Your task to perform on an android device: Open internet settings Image 0: 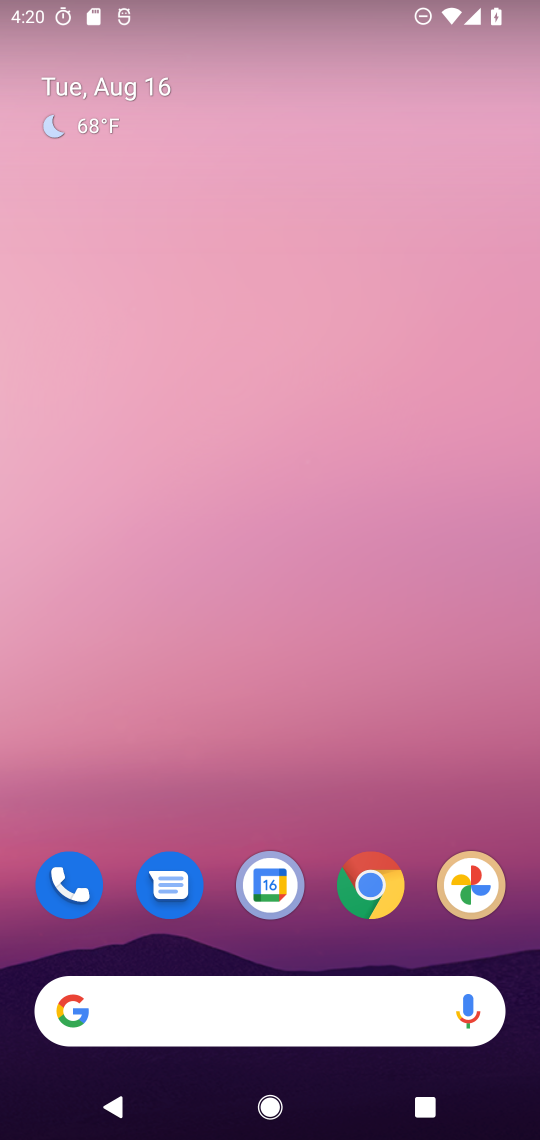
Step 0: drag from (218, 908) to (240, 286)
Your task to perform on an android device: Open internet settings Image 1: 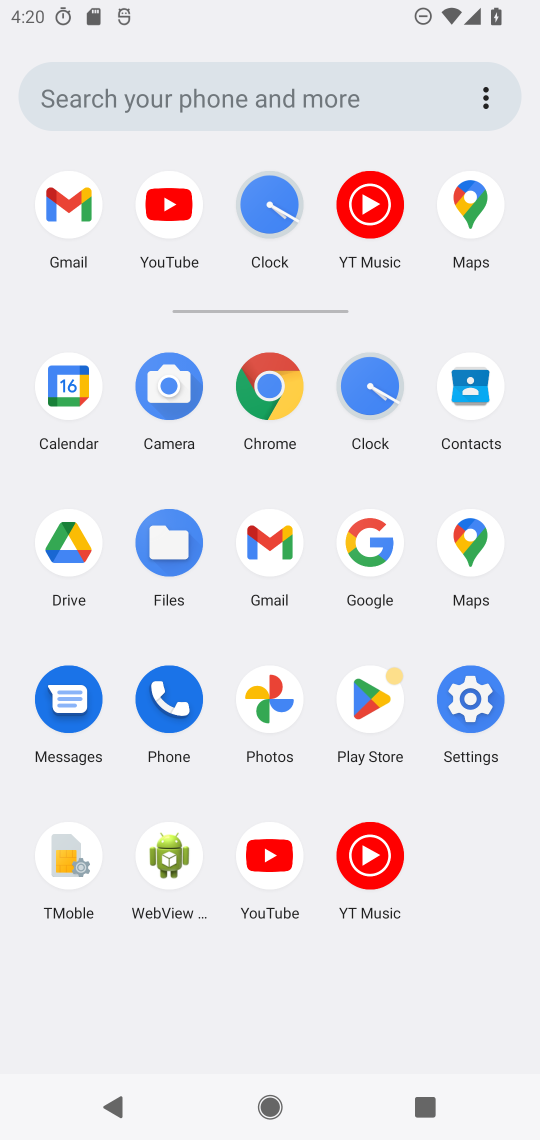
Step 1: click (468, 671)
Your task to perform on an android device: Open internet settings Image 2: 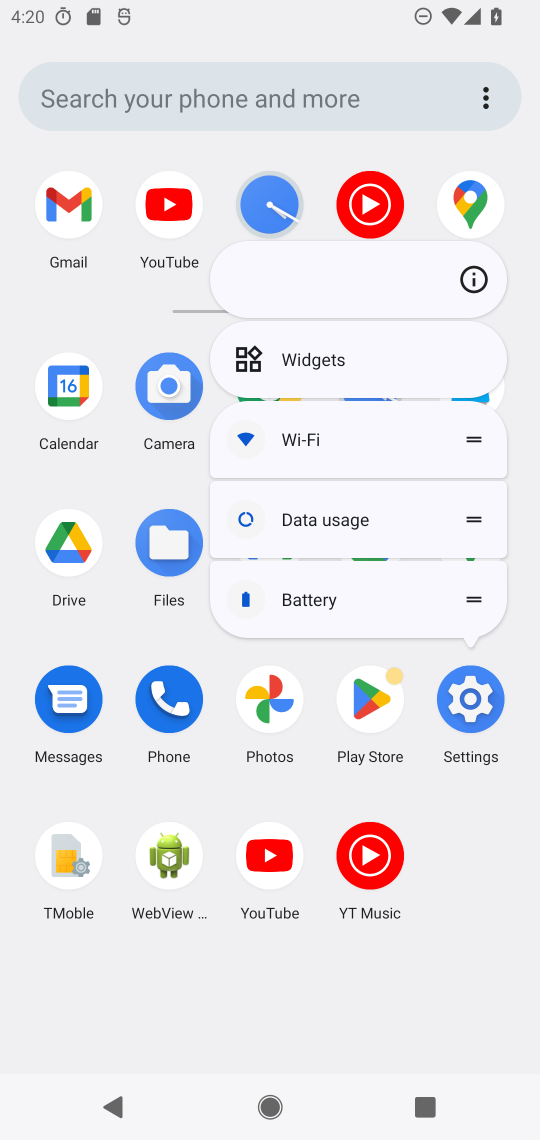
Step 2: click (478, 689)
Your task to perform on an android device: Open internet settings Image 3: 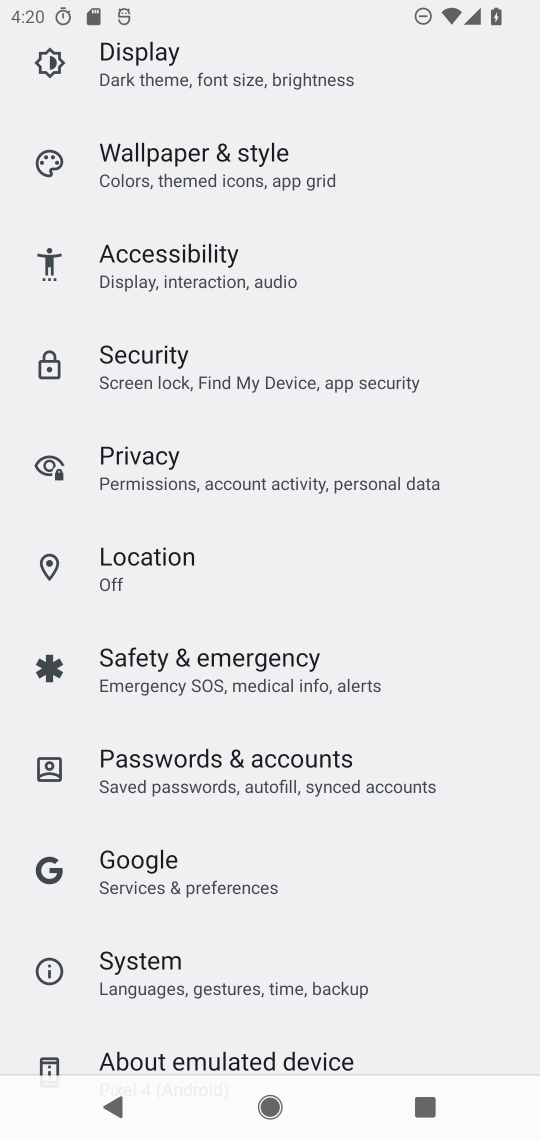
Step 3: drag from (170, 103) to (209, 811)
Your task to perform on an android device: Open internet settings Image 4: 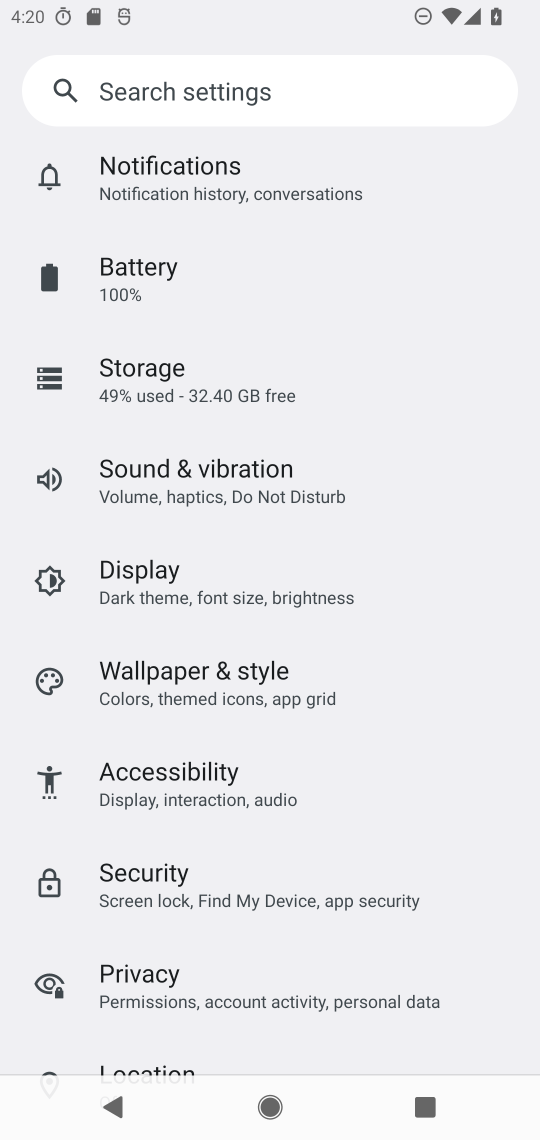
Step 4: drag from (266, 287) to (264, 849)
Your task to perform on an android device: Open internet settings Image 5: 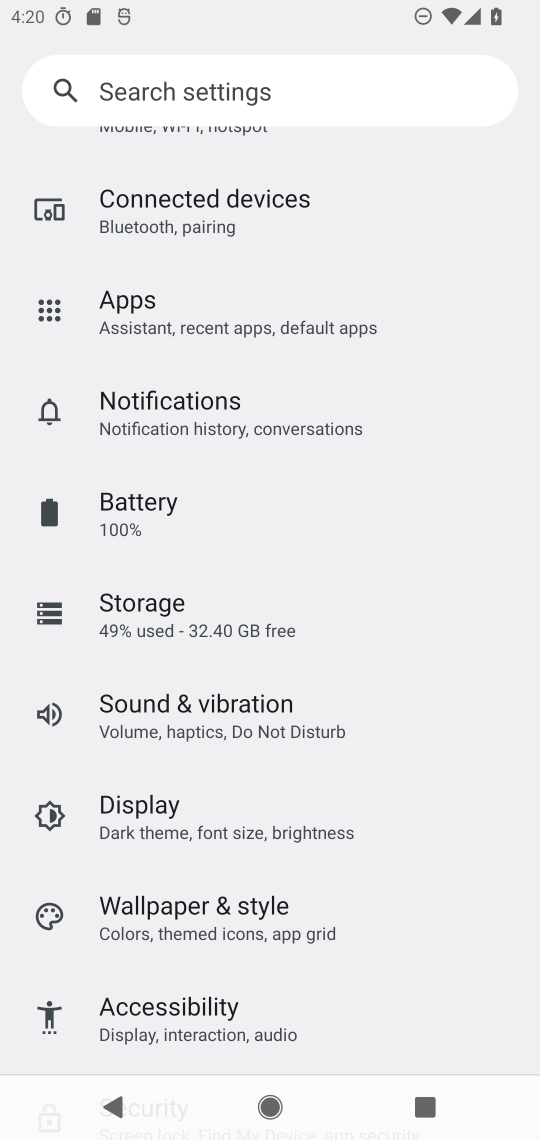
Step 5: drag from (289, 391) to (286, 1011)
Your task to perform on an android device: Open internet settings Image 6: 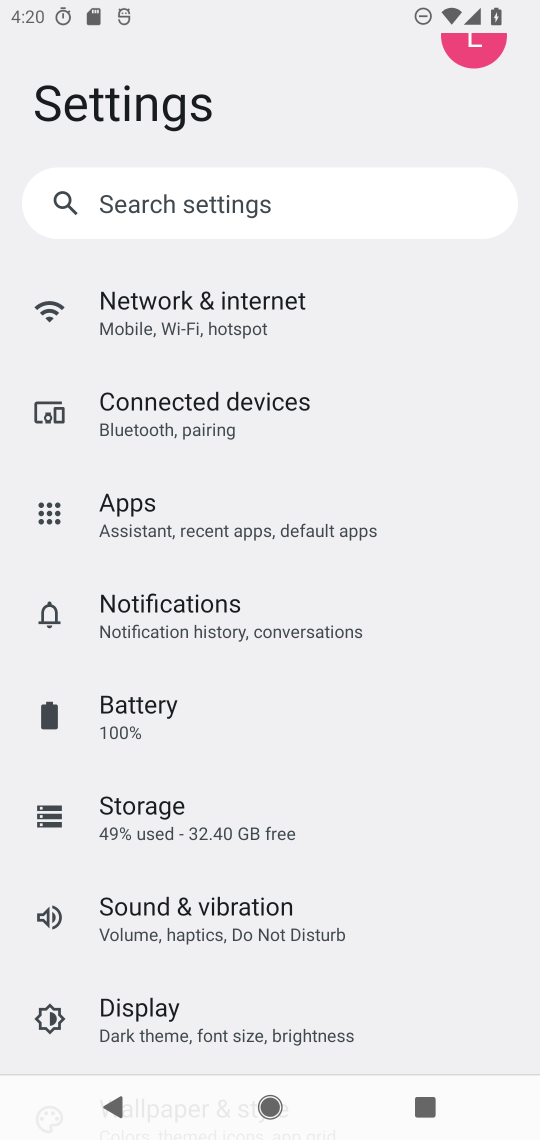
Step 6: click (231, 314)
Your task to perform on an android device: Open internet settings Image 7: 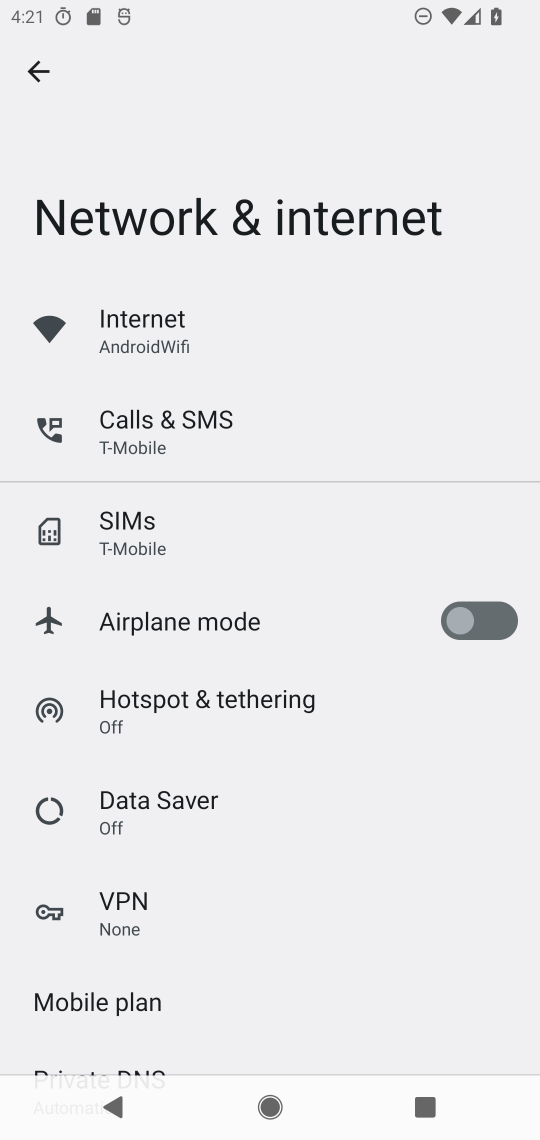
Step 7: task complete